Your task to perform on an android device: Go to Reddit.com Image 0: 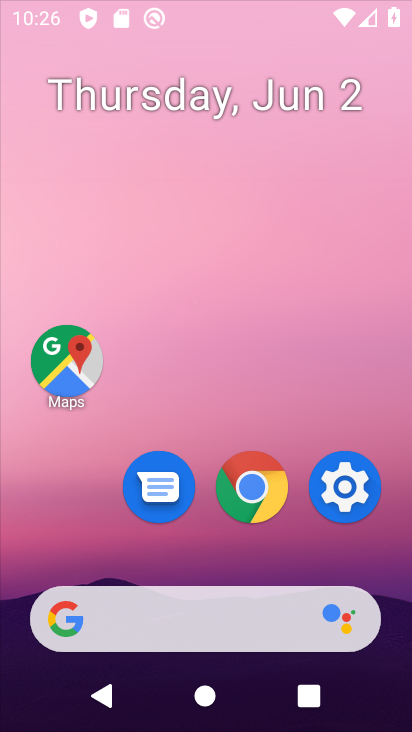
Step 0: press home button
Your task to perform on an android device: Go to Reddit.com Image 1: 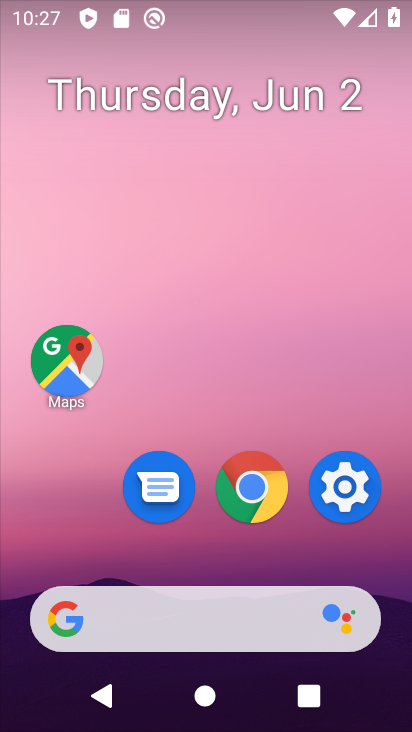
Step 1: click (239, 485)
Your task to perform on an android device: Go to Reddit.com Image 2: 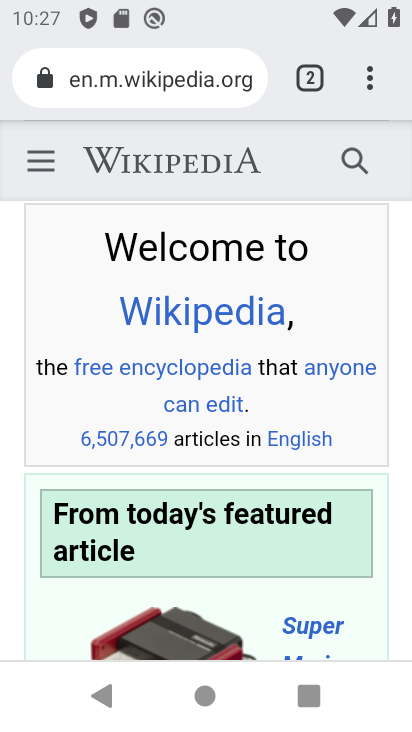
Step 2: click (159, 89)
Your task to perform on an android device: Go to Reddit.com Image 3: 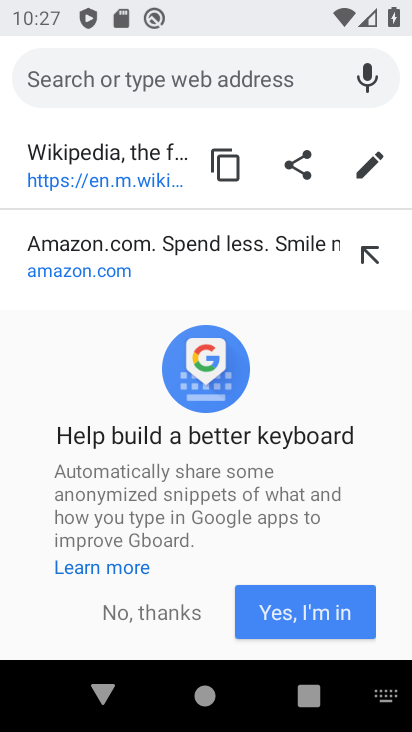
Step 3: click (124, 616)
Your task to perform on an android device: Go to Reddit.com Image 4: 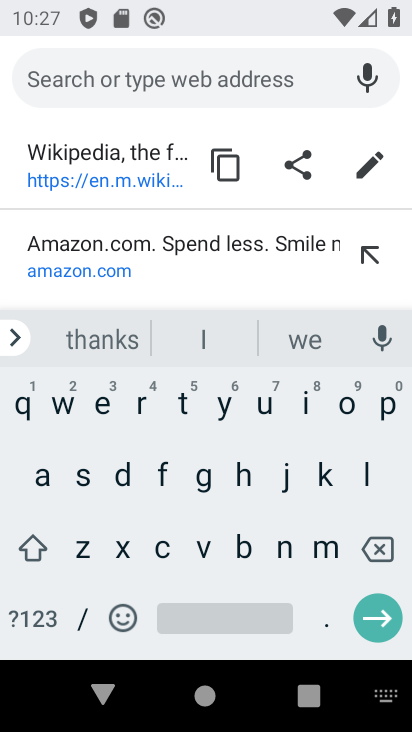
Step 4: click (134, 404)
Your task to perform on an android device: Go to Reddit.com Image 5: 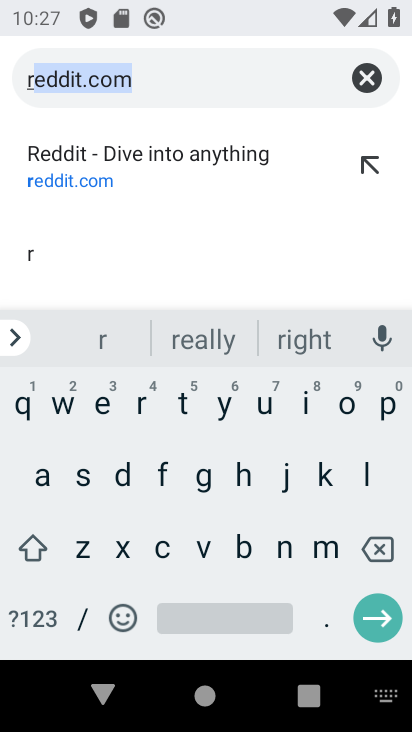
Step 5: click (99, 402)
Your task to perform on an android device: Go to Reddit.com Image 6: 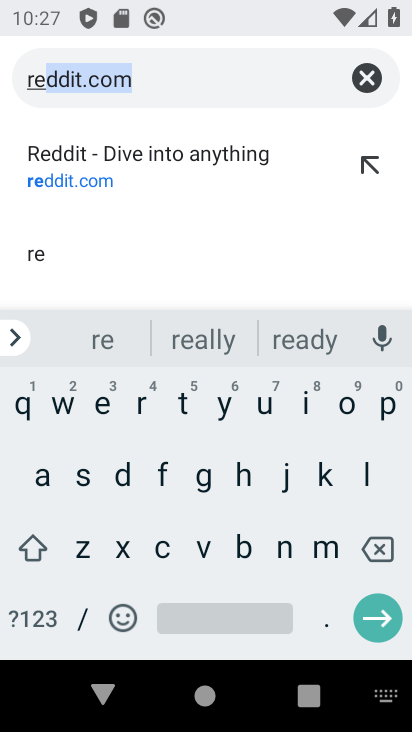
Step 6: click (175, 91)
Your task to perform on an android device: Go to Reddit.com Image 7: 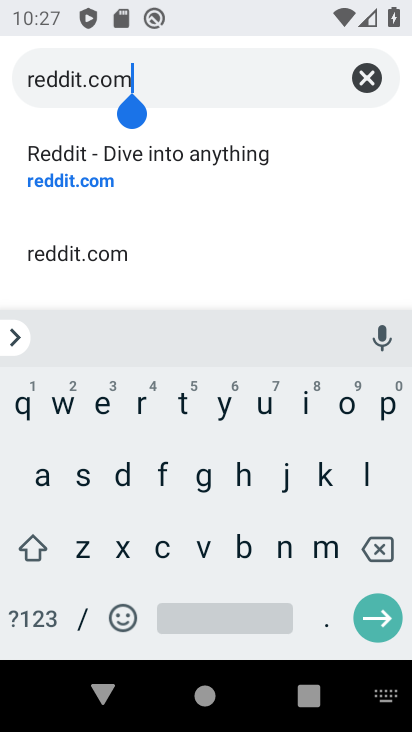
Step 7: task complete